Your task to perform on an android device: Open location settings Image 0: 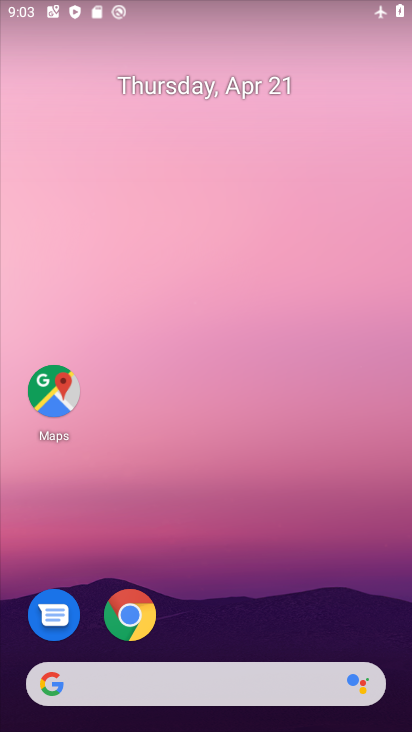
Step 0: drag from (202, 657) to (204, 144)
Your task to perform on an android device: Open location settings Image 1: 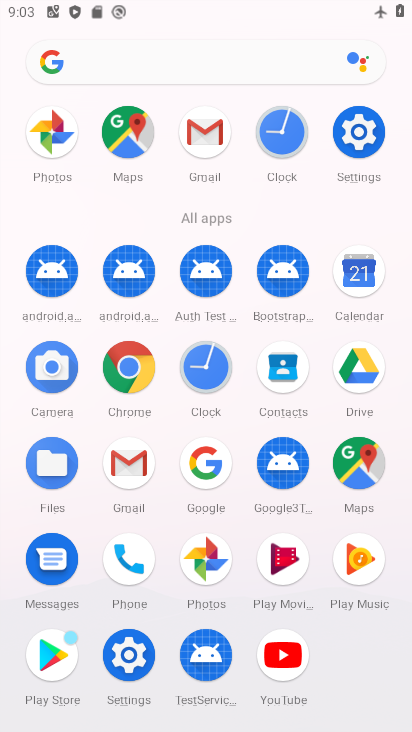
Step 1: click (364, 126)
Your task to perform on an android device: Open location settings Image 2: 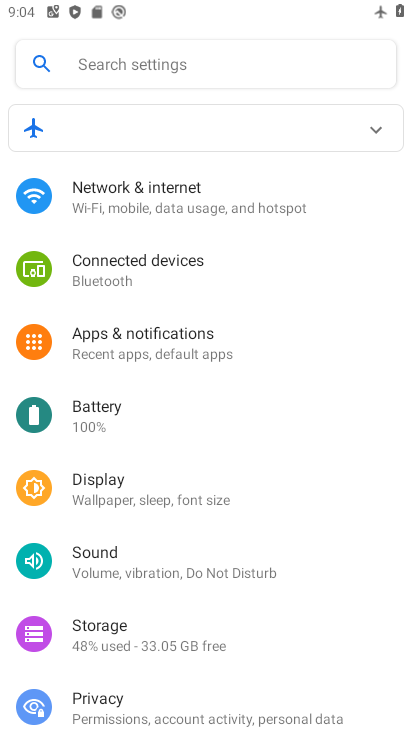
Step 2: drag from (145, 671) to (157, 365)
Your task to perform on an android device: Open location settings Image 3: 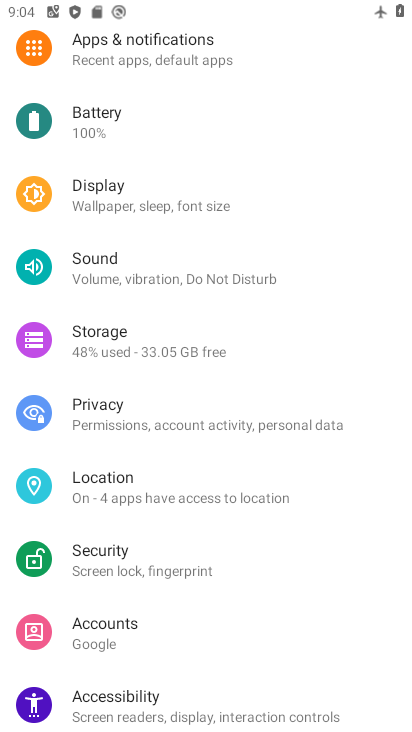
Step 3: click (119, 493)
Your task to perform on an android device: Open location settings Image 4: 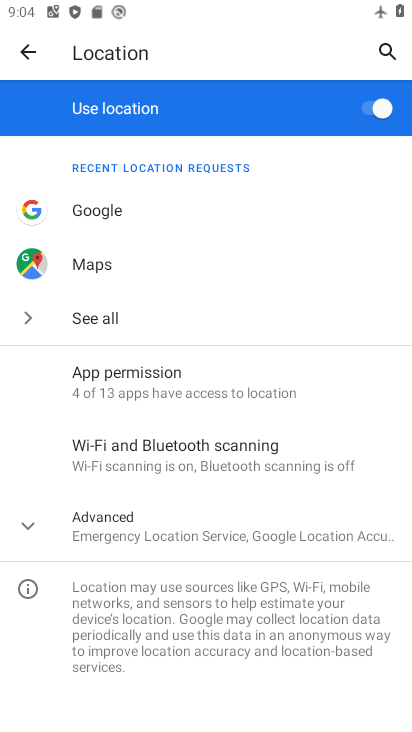
Step 4: task complete